Your task to perform on an android device: Go to CNN.com Image 0: 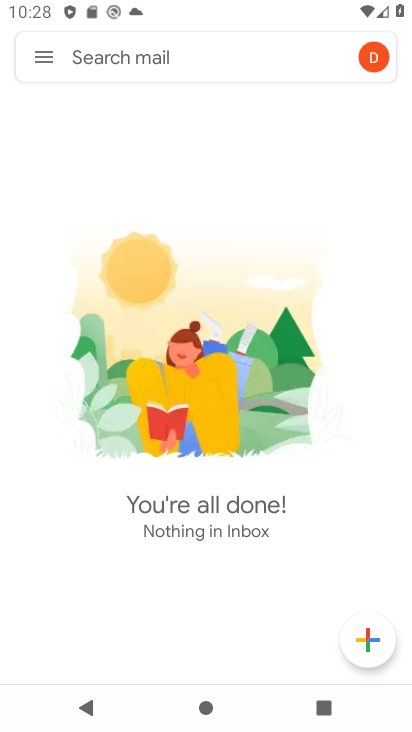
Step 0: press home button
Your task to perform on an android device: Go to CNN.com Image 1: 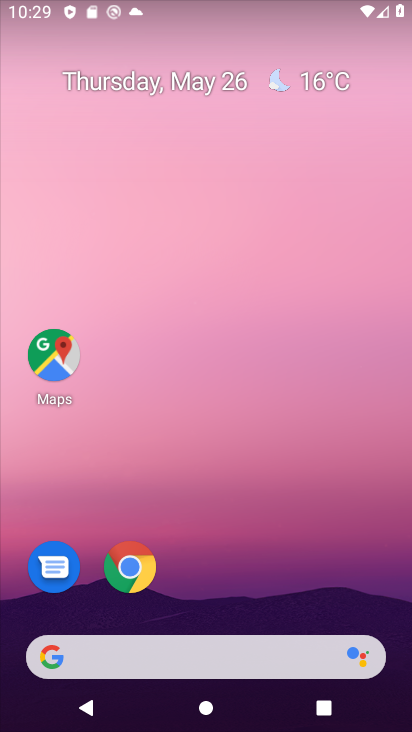
Step 1: click (146, 543)
Your task to perform on an android device: Go to CNN.com Image 2: 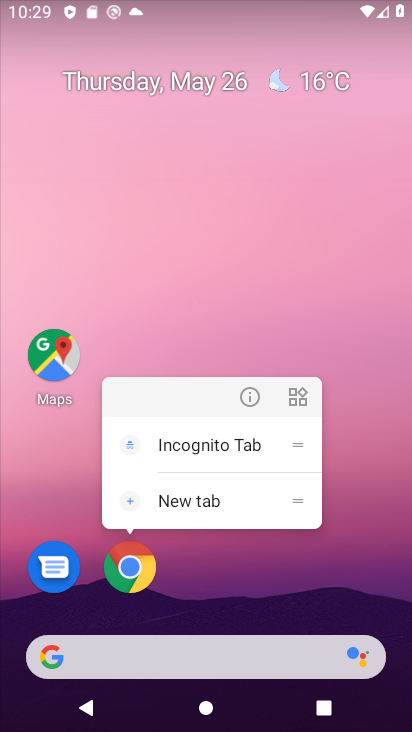
Step 2: click (127, 565)
Your task to perform on an android device: Go to CNN.com Image 3: 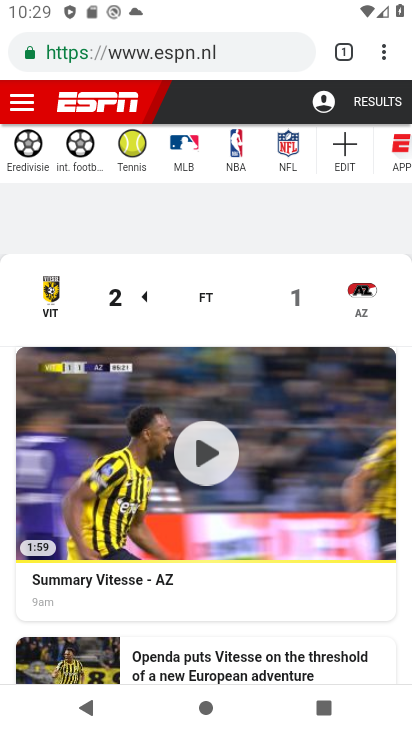
Step 3: click (129, 563)
Your task to perform on an android device: Go to CNN.com Image 4: 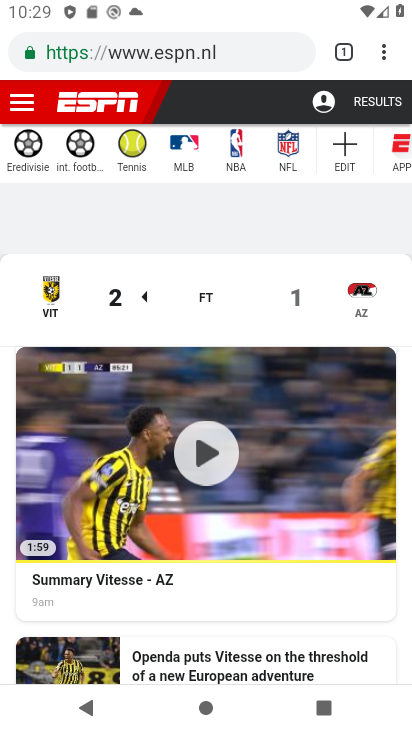
Step 4: click (350, 48)
Your task to perform on an android device: Go to CNN.com Image 5: 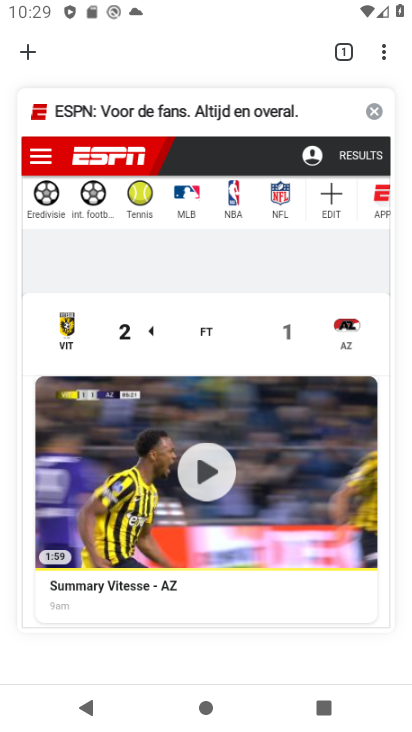
Step 5: click (374, 111)
Your task to perform on an android device: Go to CNN.com Image 6: 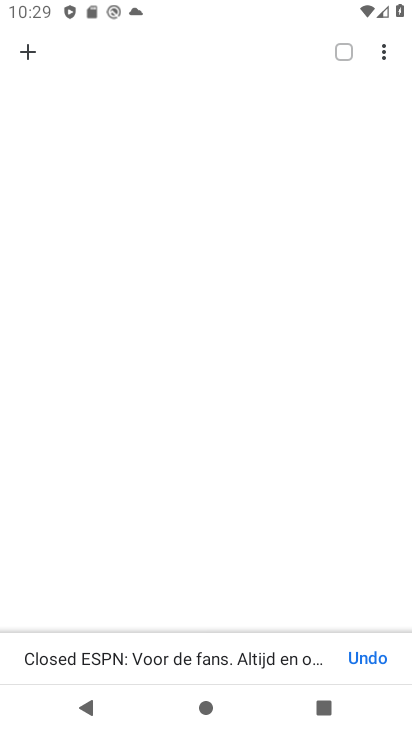
Step 6: click (30, 56)
Your task to perform on an android device: Go to CNN.com Image 7: 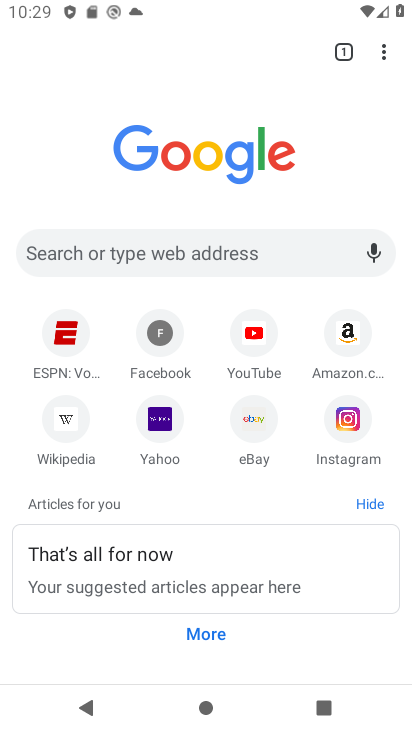
Step 7: click (97, 248)
Your task to perform on an android device: Go to CNN.com Image 8: 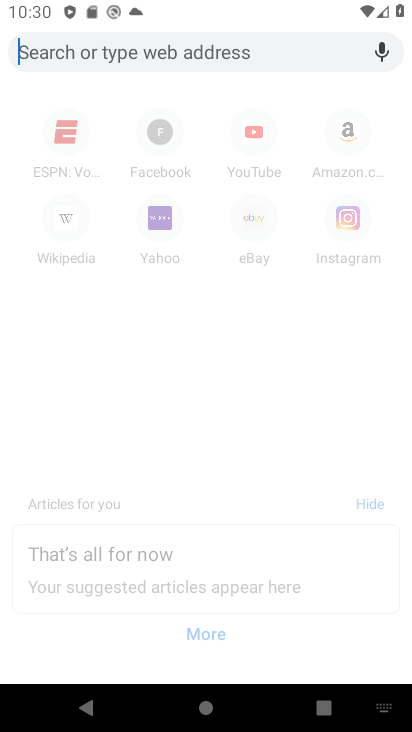
Step 8: type "cnn.com"
Your task to perform on an android device: Go to CNN.com Image 9: 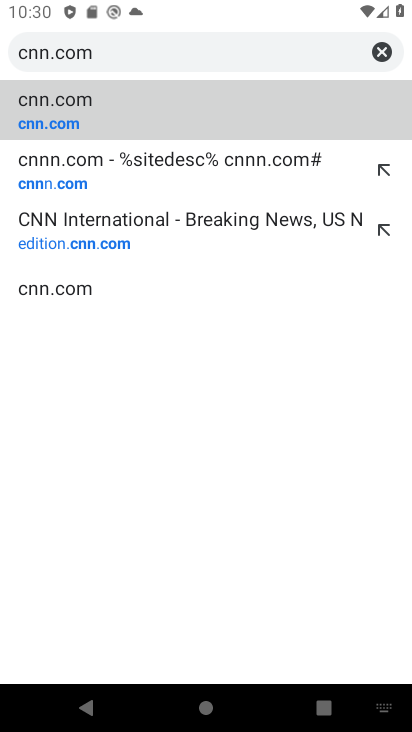
Step 9: click (92, 109)
Your task to perform on an android device: Go to CNN.com Image 10: 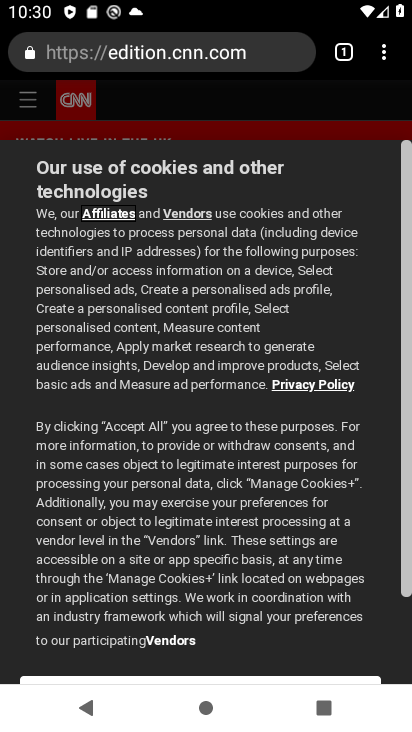
Step 10: drag from (294, 467) to (286, 193)
Your task to perform on an android device: Go to CNN.com Image 11: 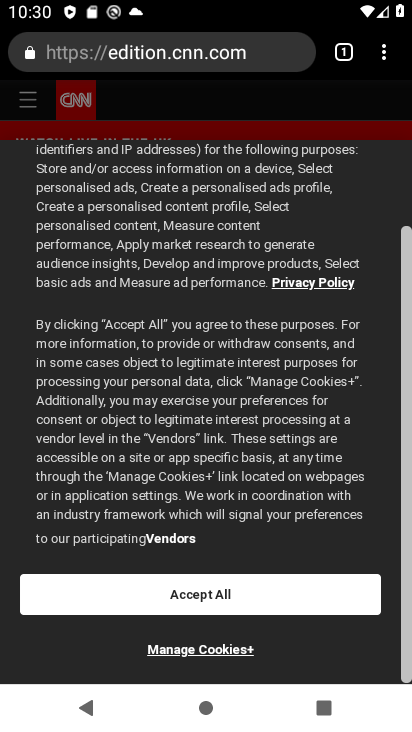
Step 11: drag from (228, 582) to (229, 240)
Your task to perform on an android device: Go to CNN.com Image 12: 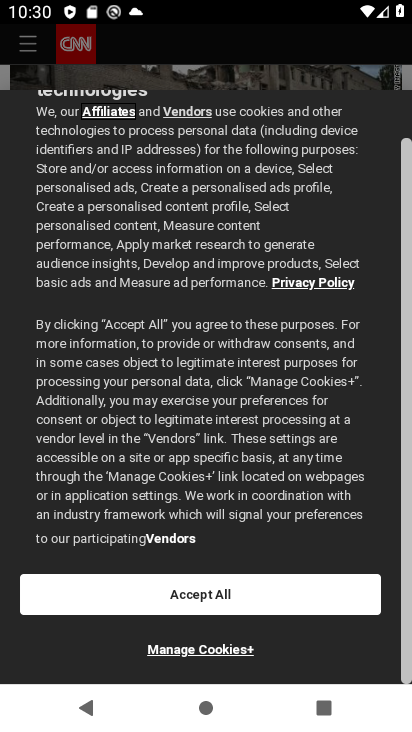
Step 12: click (198, 587)
Your task to perform on an android device: Go to CNN.com Image 13: 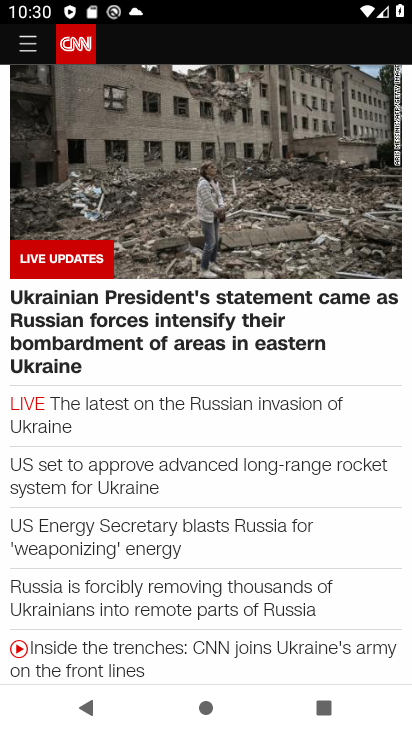
Step 13: task complete